Your task to perform on an android device: Clear the shopping cart on target. Add logitech g pro to the cart on target Image 0: 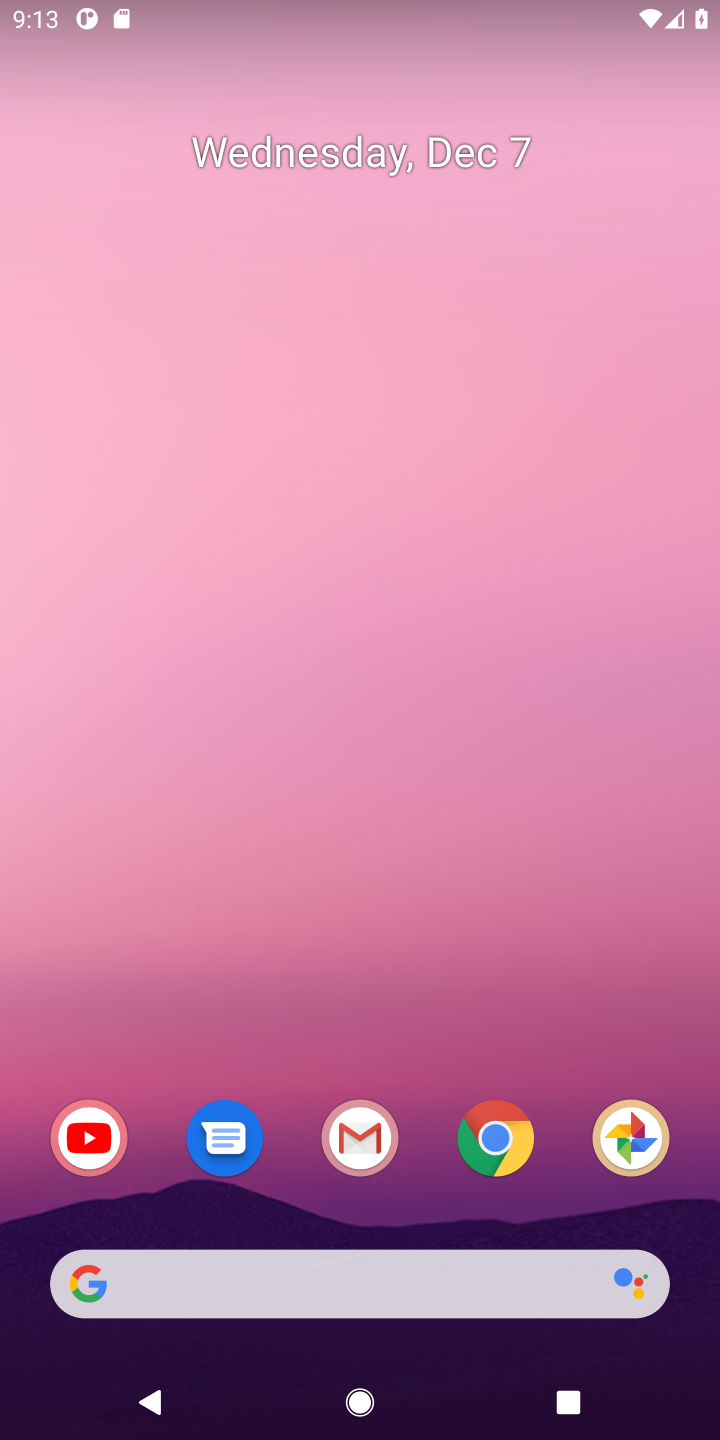
Step 0: press home button
Your task to perform on an android device: Clear the shopping cart on target. Add logitech g pro to the cart on target Image 1: 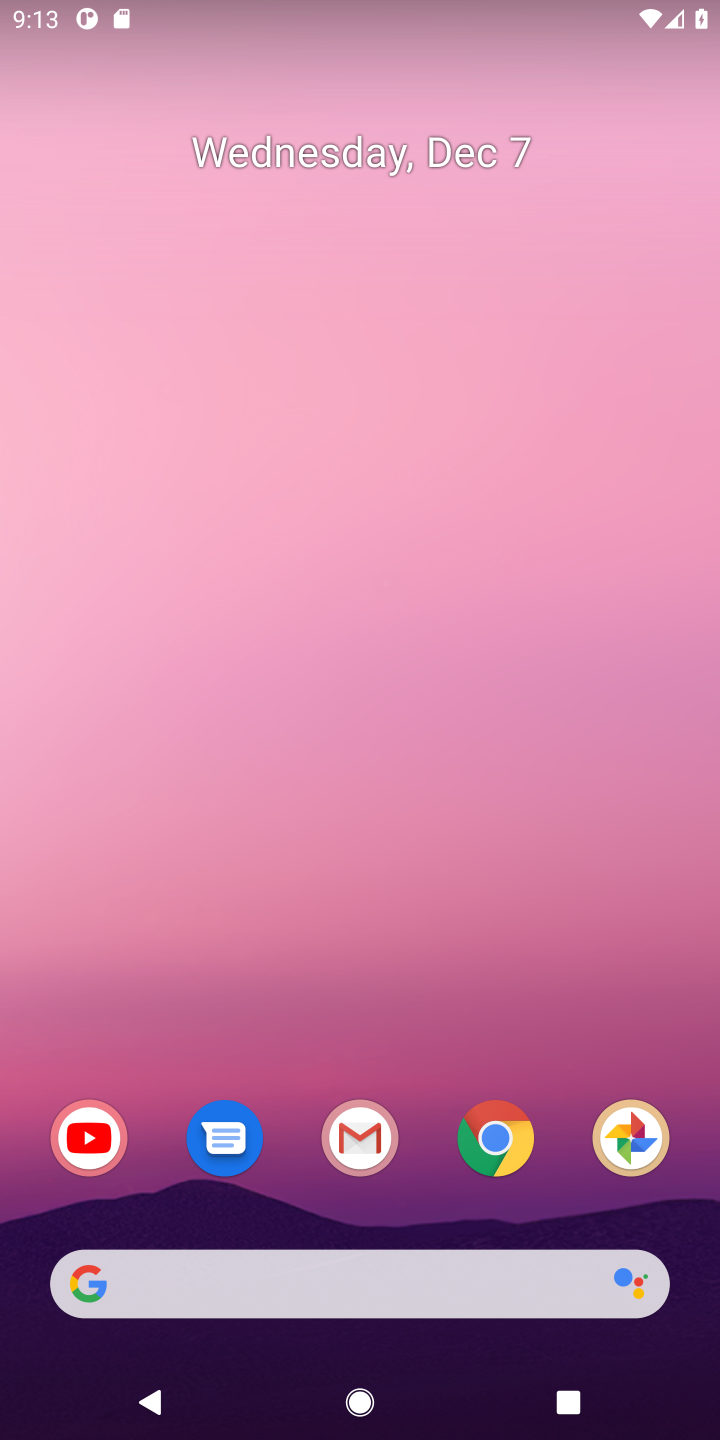
Step 1: click (131, 1288)
Your task to perform on an android device: Clear the shopping cart on target. Add logitech g pro to the cart on target Image 2: 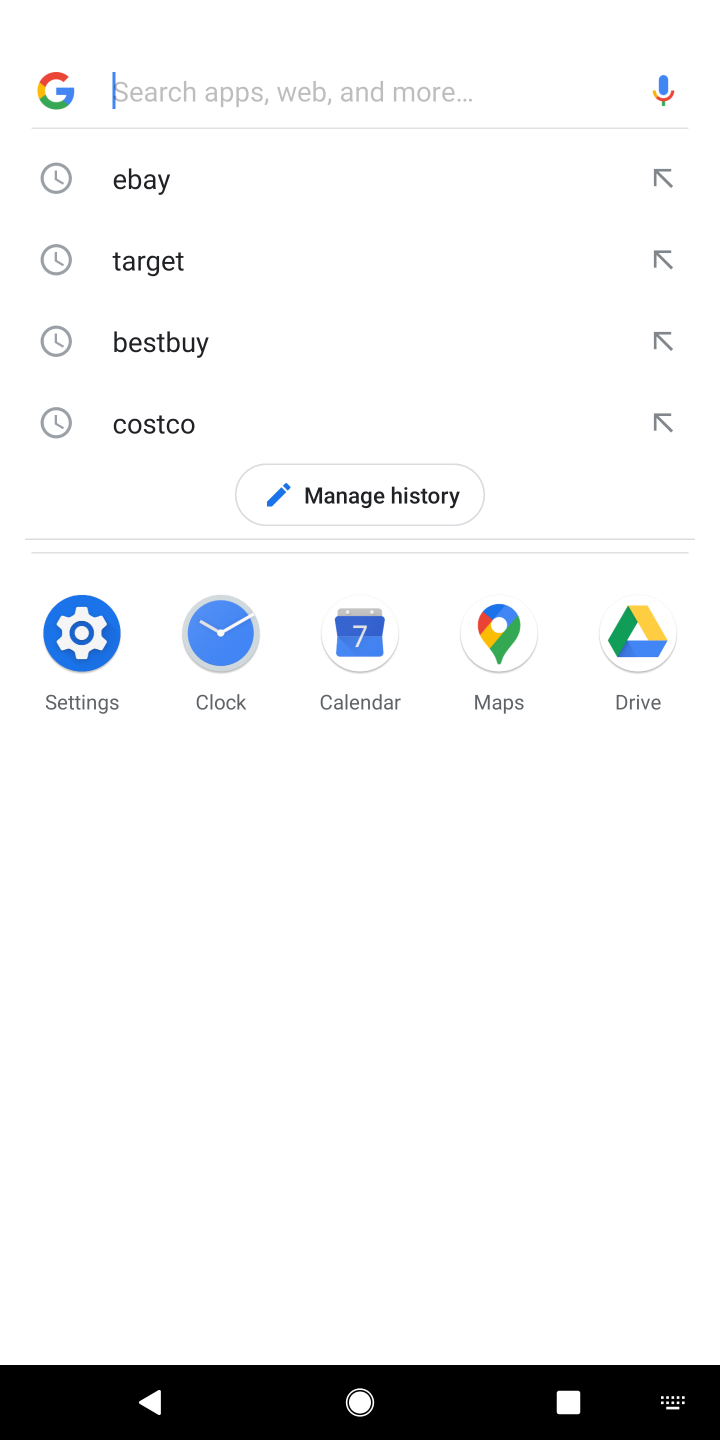
Step 2: type "target"
Your task to perform on an android device: Clear the shopping cart on target. Add logitech g pro to the cart on target Image 3: 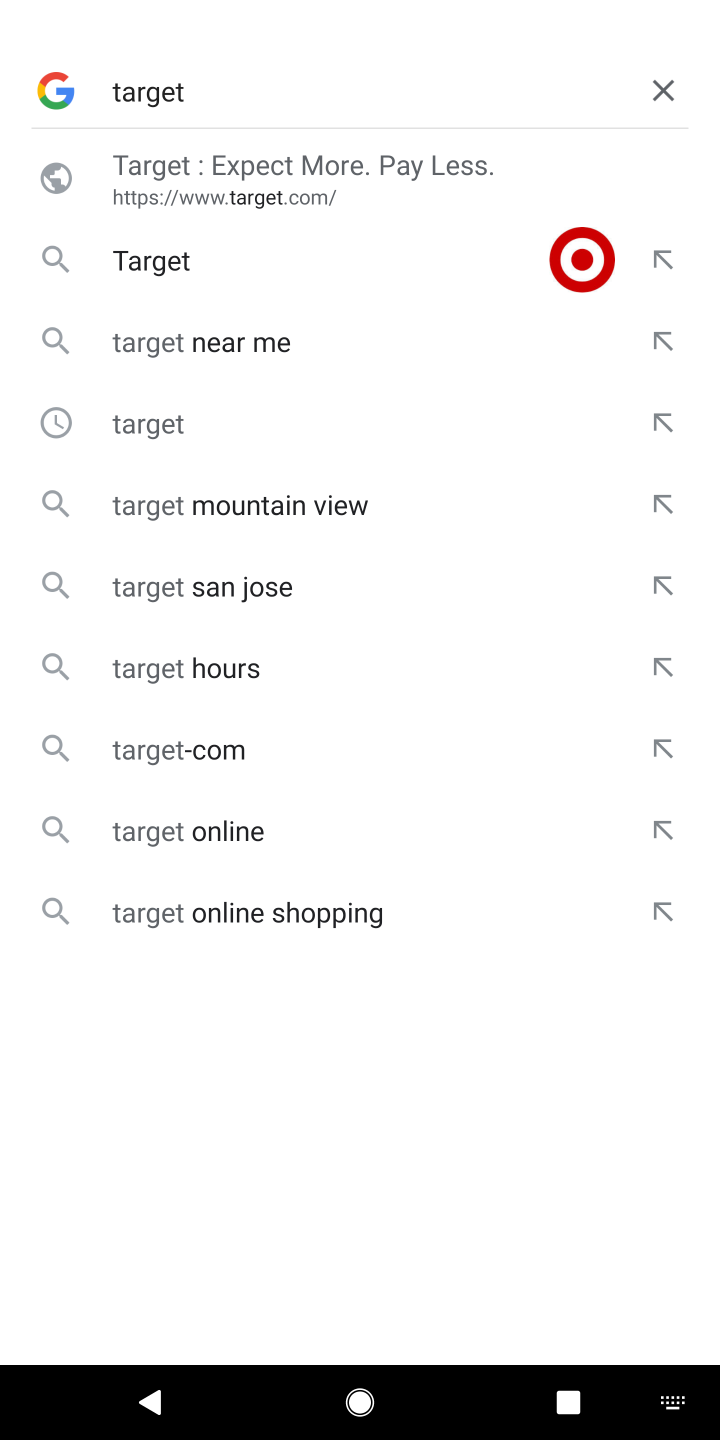
Step 3: press enter
Your task to perform on an android device: Clear the shopping cart on target. Add logitech g pro to the cart on target Image 4: 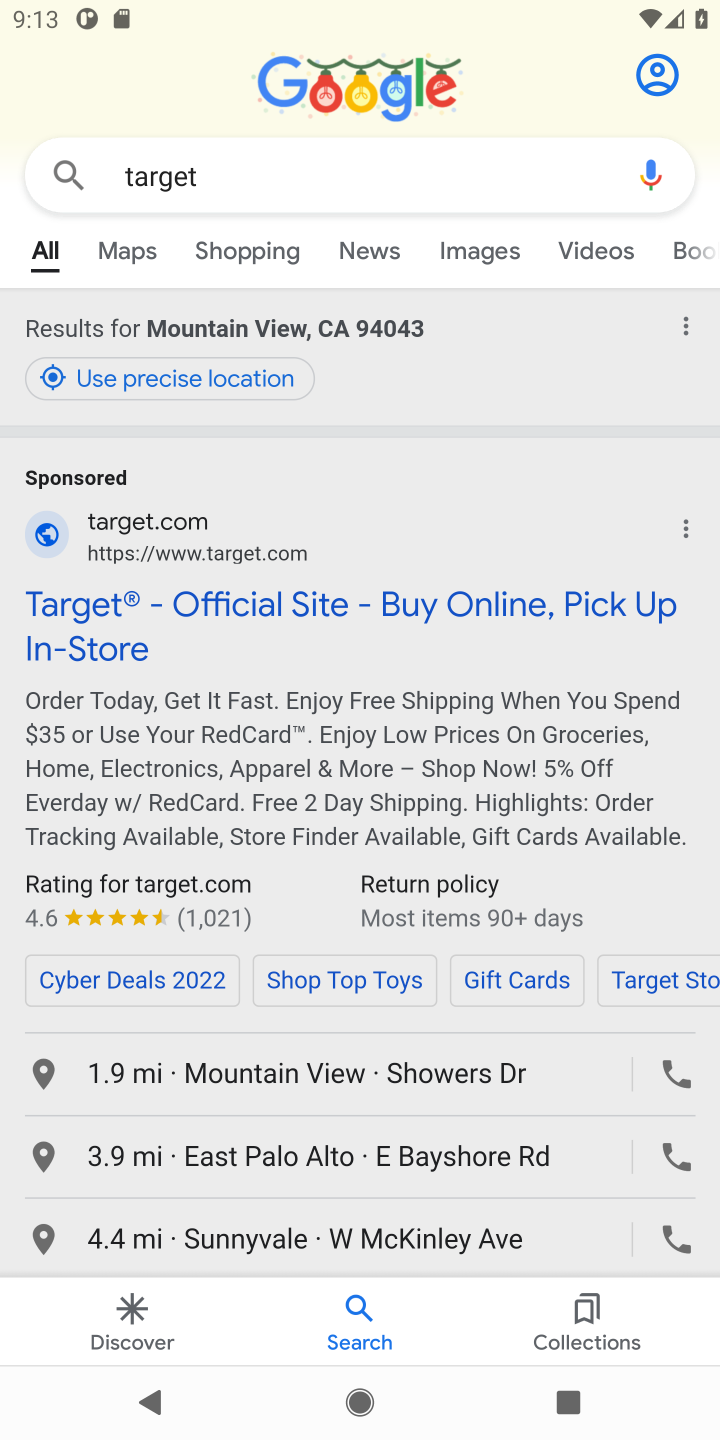
Step 4: click (265, 606)
Your task to perform on an android device: Clear the shopping cart on target. Add logitech g pro to the cart on target Image 5: 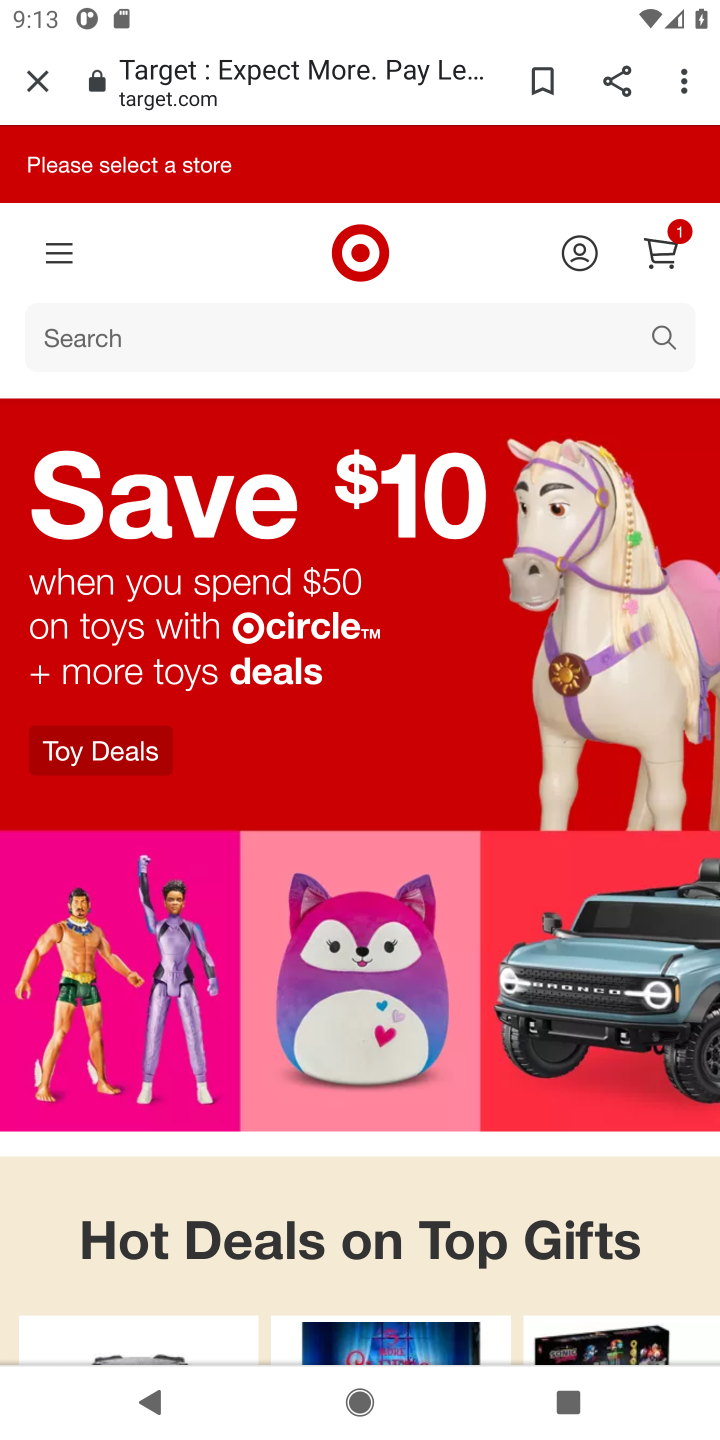
Step 5: click (666, 250)
Your task to perform on an android device: Clear the shopping cart on target. Add logitech g pro to the cart on target Image 6: 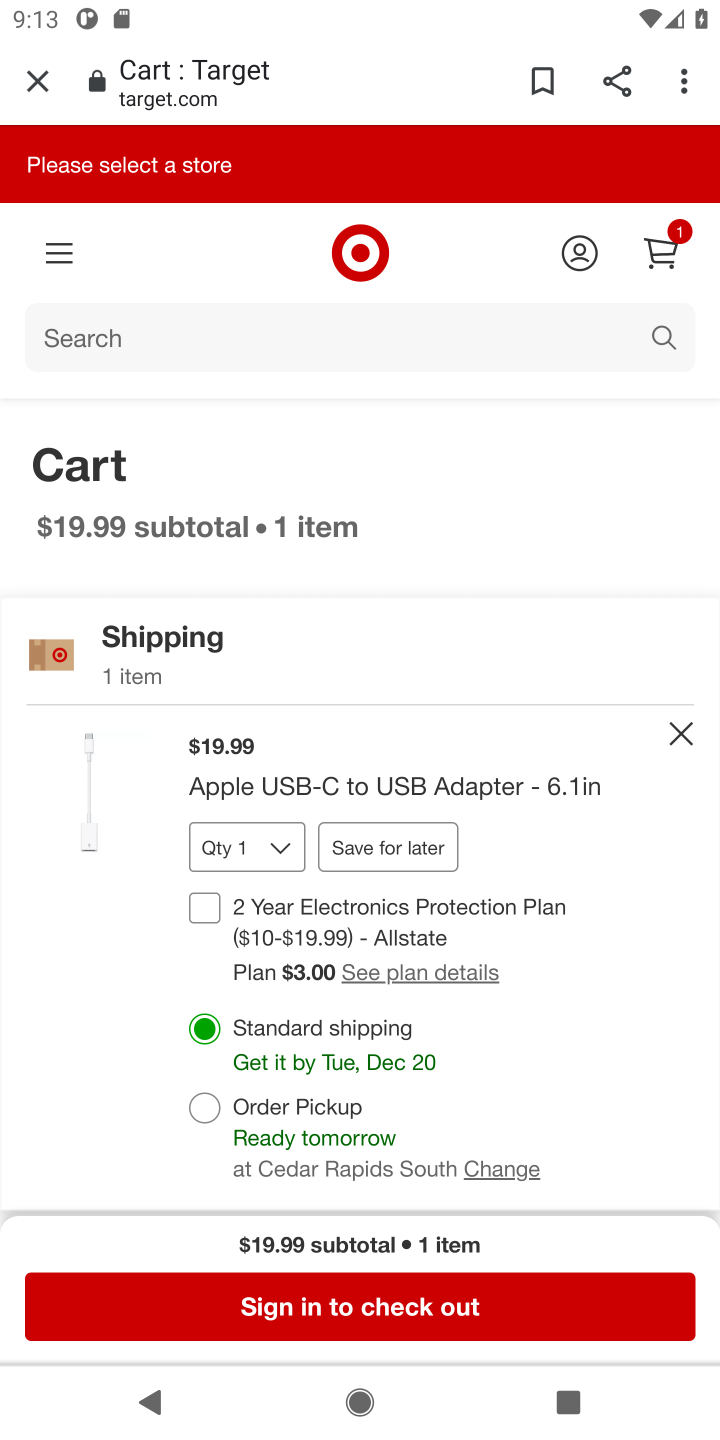
Step 6: click (679, 727)
Your task to perform on an android device: Clear the shopping cart on target. Add logitech g pro to the cart on target Image 7: 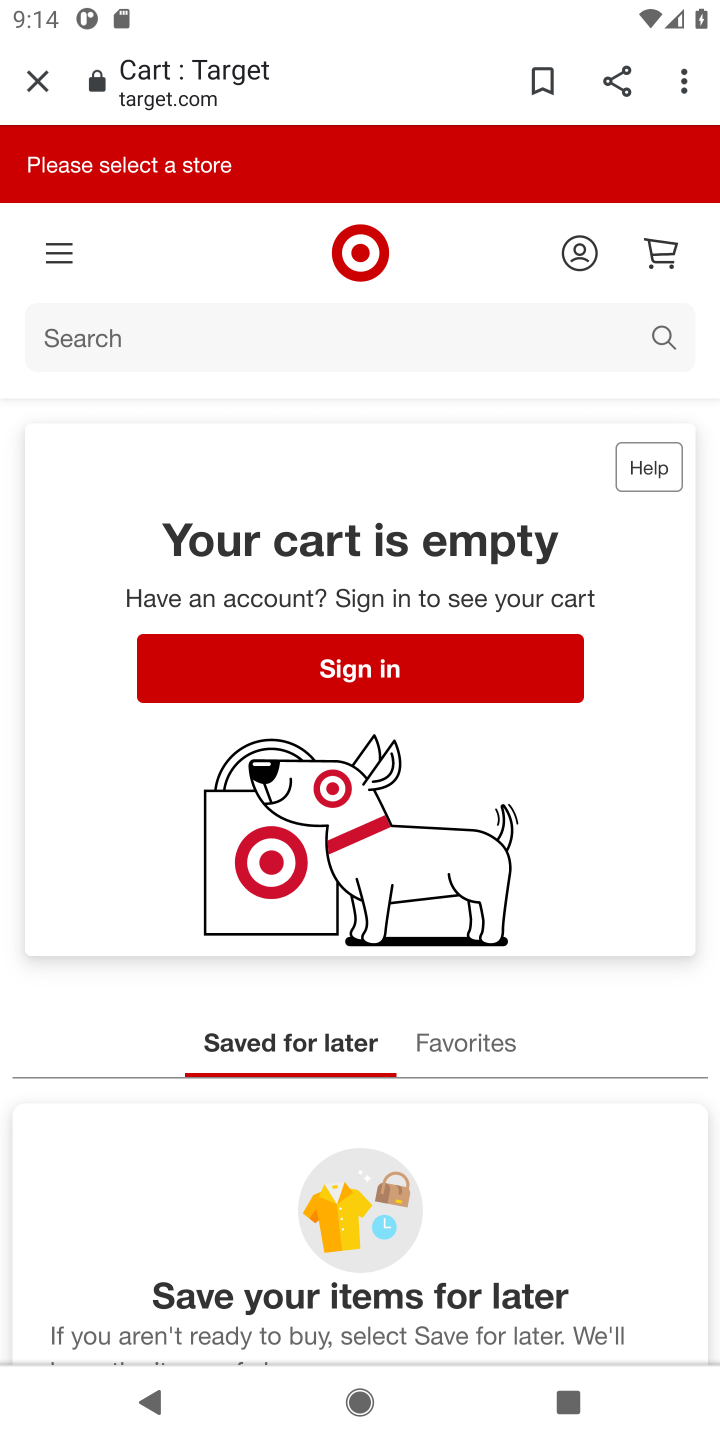
Step 7: click (140, 337)
Your task to perform on an android device: Clear the shopping cart on target. Add logitech g pro to the cart on target Image 8: 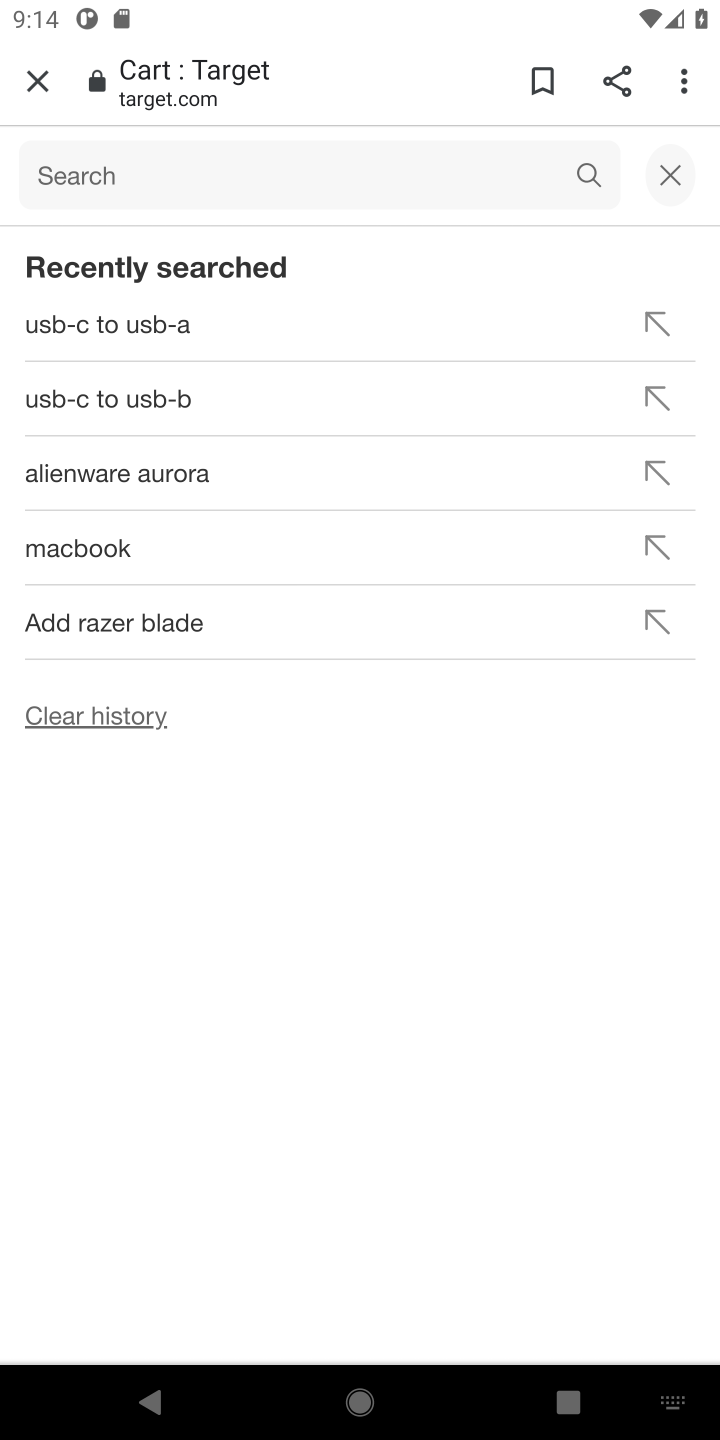
Step 8: type "ogitech g pro"
Your task to perform on an android device: Clear the shopping cart on target. Add logitech g pro to the cart on target Image 9: 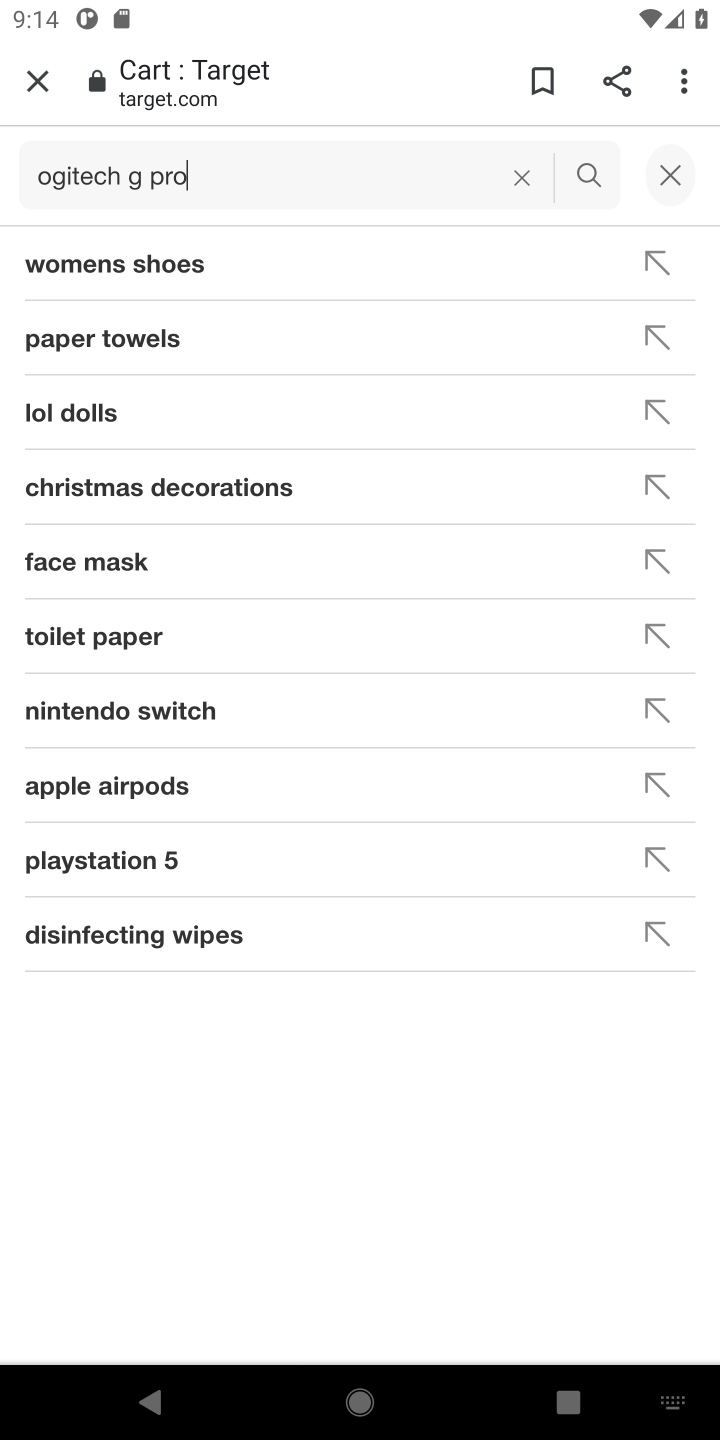
Step 9: press enter
Your task to perform on an android device: Clear the shopping cart on target. Add logitech g pro to the cart on target Image 10: 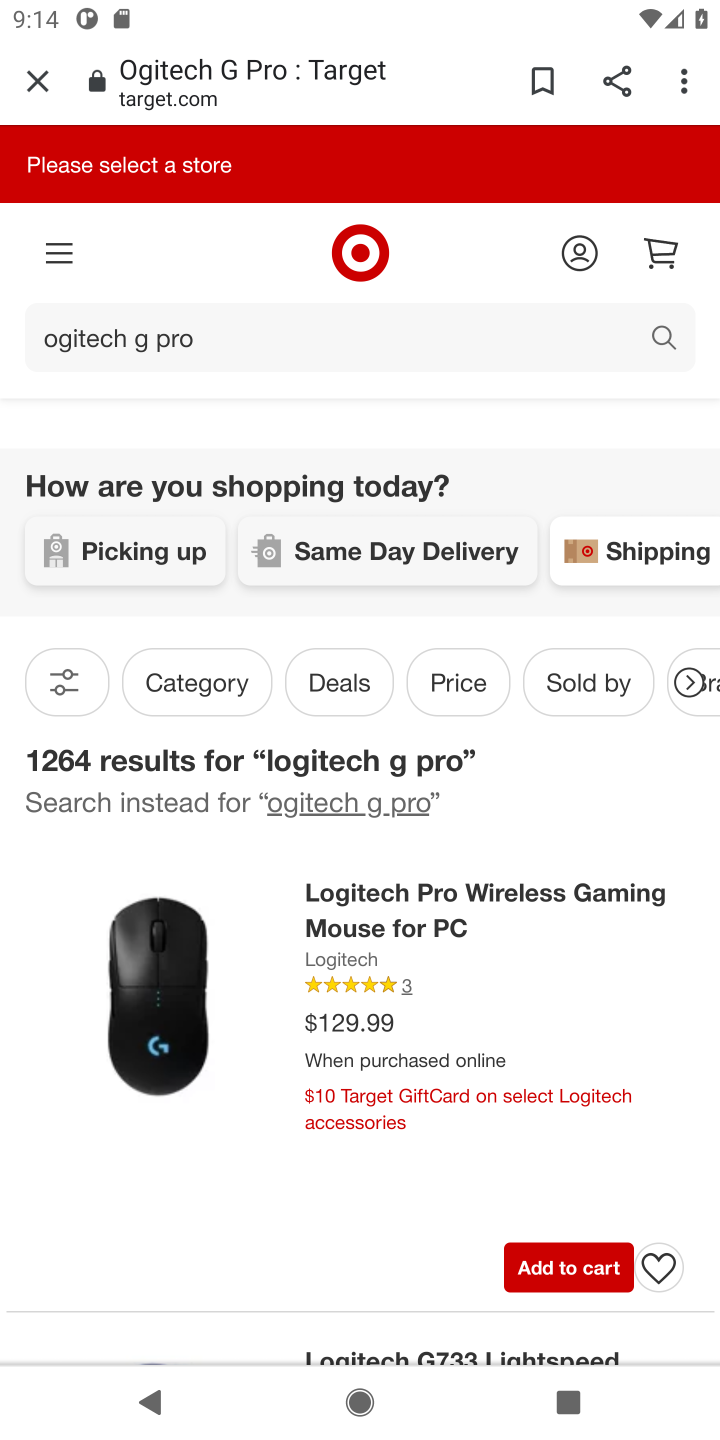
Step 10: click (584, 1269)
Your task to perform on an android device: Clear the shopping cart on target. Add logitech g pro to the cart on target Image 11: 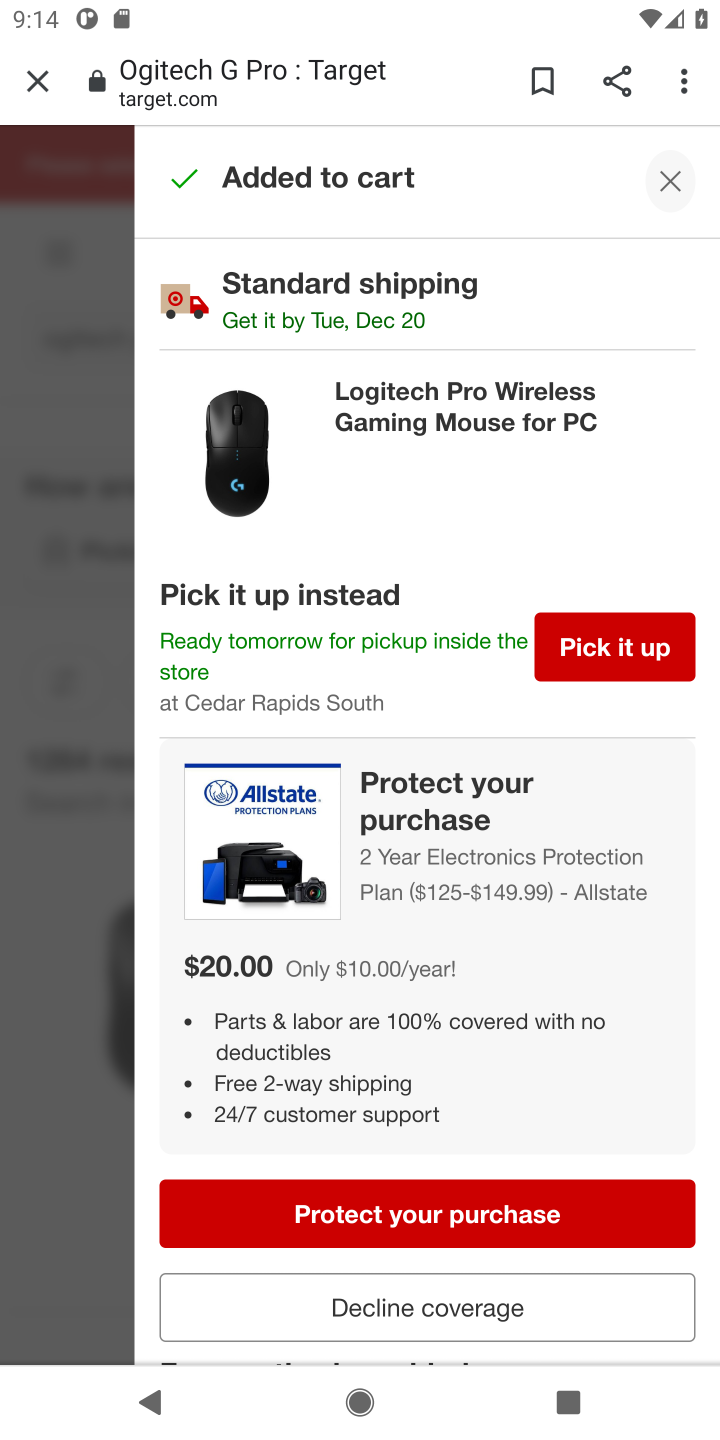
Step 11: task complete